Your task to perform on an android device: toggle pop-ups in chrome Image 0: 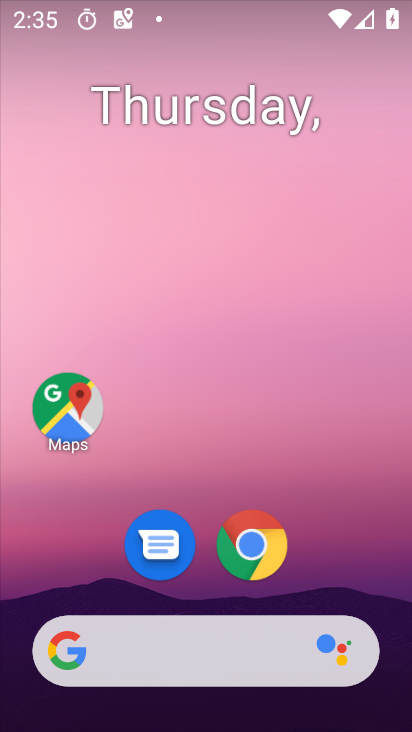
Step 0: click (248, 539)
Your task to perform on an android device: toggle pop-ups in chrome Image 1: 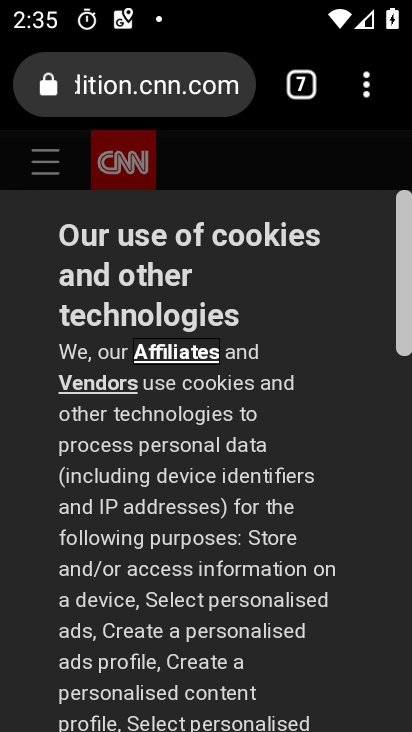
Step 1: click (366, 92)
Your task to perform on an android device: toggle pop-ups in chrome Image 2: 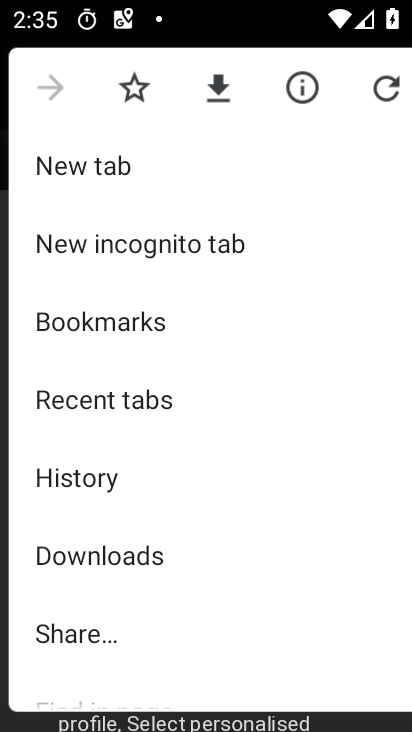
Step 2: drag from (123, 626) to (151, 234)
Your task to perform on an android device: toggle pop-ups in chrome Image 3: 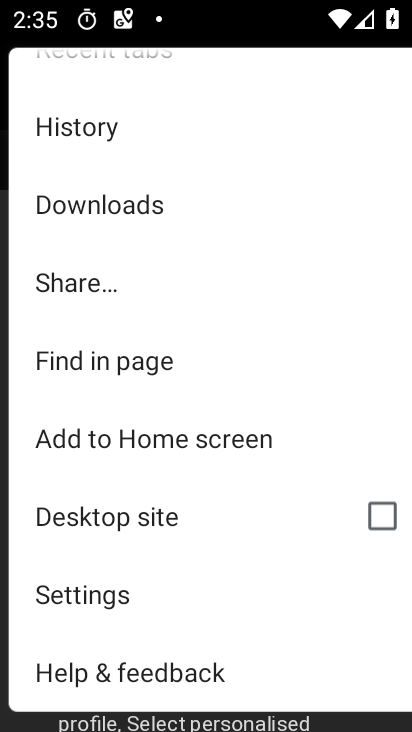
Step 3: click (88, 586)
Your task to perform on an android device: toggle pop-ups in chrome Image 4: 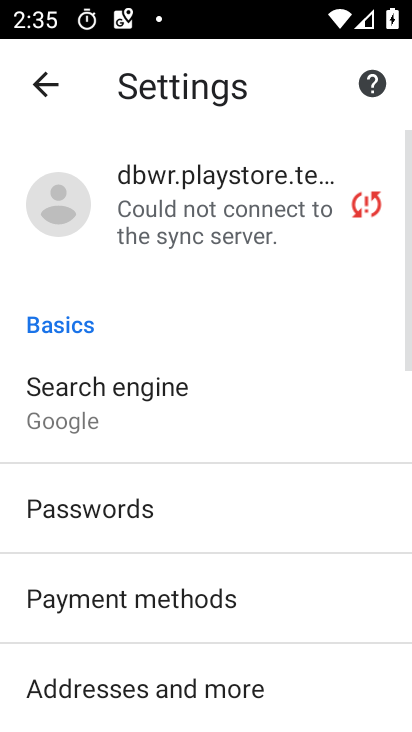
Step 4: drag from (130, 678) to (158, 256)
Your task to perform on an android device: toggle pop-ups in chrome Image 5: 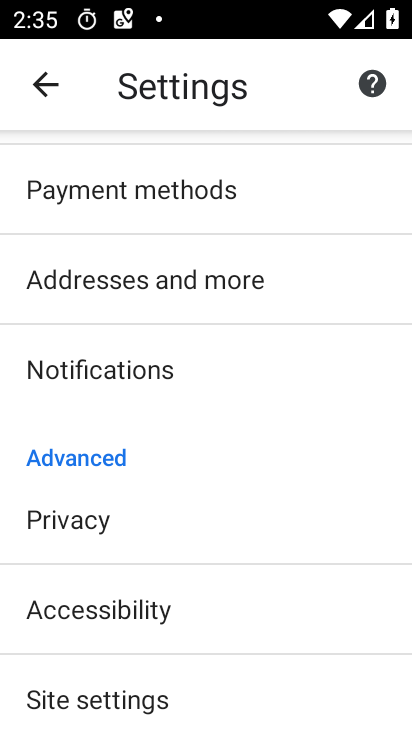
Step 5: drag from (153, 661) to (158, 235)
Your task to perform on an android device: toggle pop-ups in chrome Image 6: 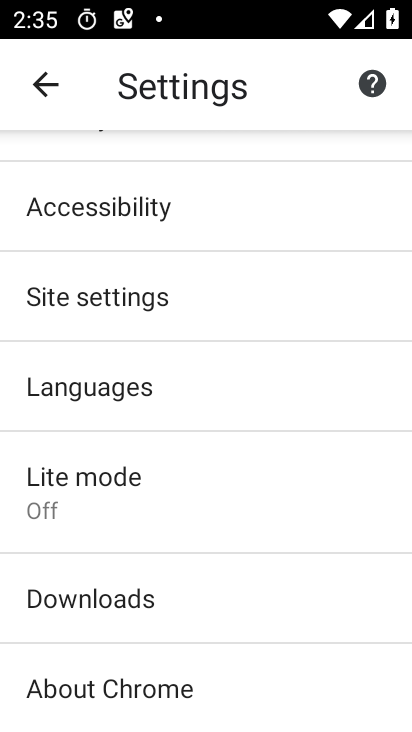
Step 6: click (104, 300)
Your task to perform on an android device: toggle pop-ups in chrome Image 7: 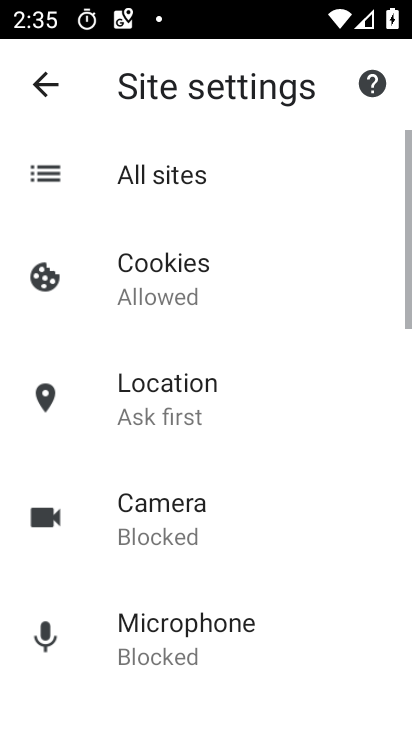
Step 7: drag from (163, 664) to (162, 276)
Your task to perform on an android device: toggle pop-ups in chrome Image 8: 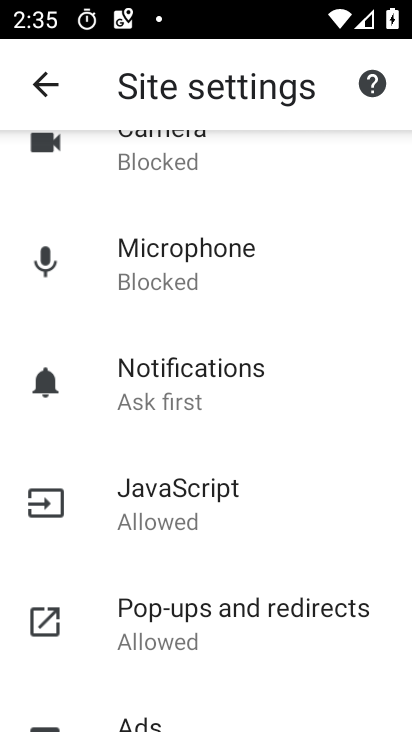
Step 8: click (157, 617)
Your task to perform on an android device: toggle pop-ups in chrome Image 9: 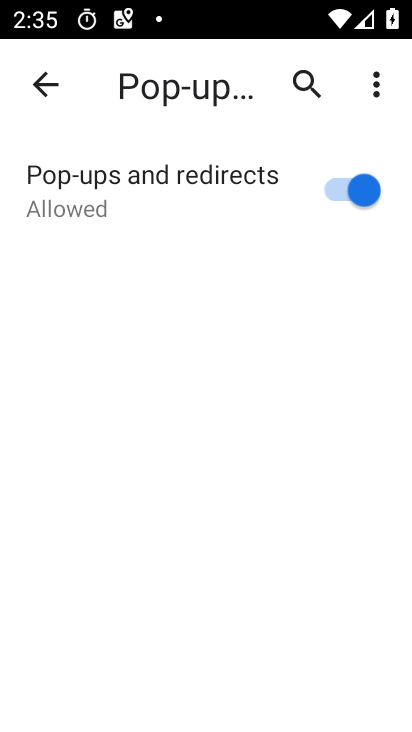
Step 9: click (336, 187)
Your task to perform on an android device: toggle pop-ups in chrome Image 10: 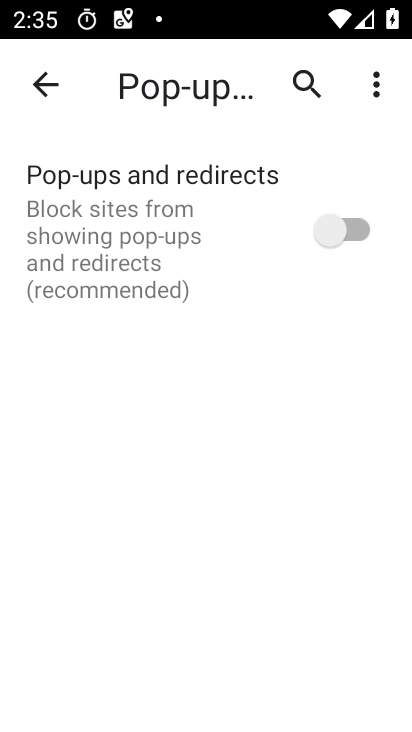
Step 10: task complete